Your task to perform on an android device: Search for sushi restaurants on Maps Image 0: 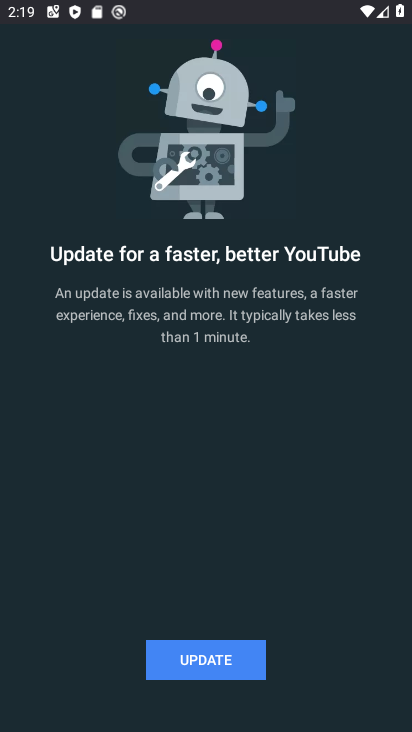
Step 0: press home button
Your task to perform on an android device: Search for sushi restaurants on Maps Image 1: 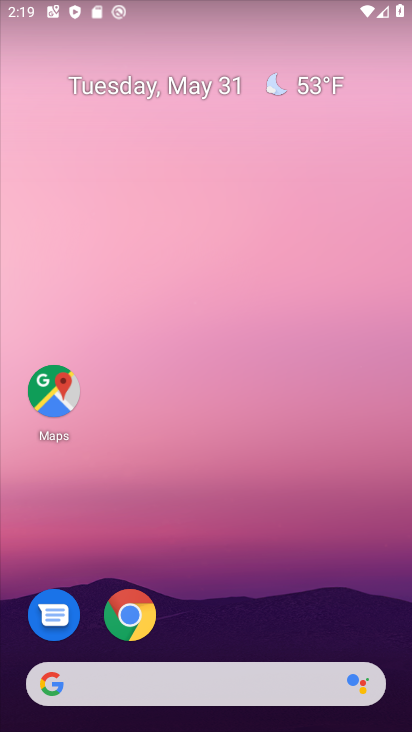
Step 1: click (42, 384)
Your task to perform on an android device: Search for sushi restaurants on Maps Image 2: 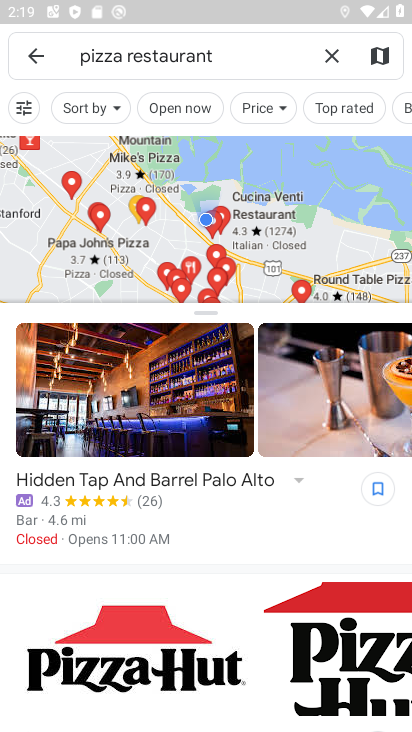
Step 2: click (331, 51)
Your task to perform on an android device: Search for sushi restaurants on Maps Image 3: 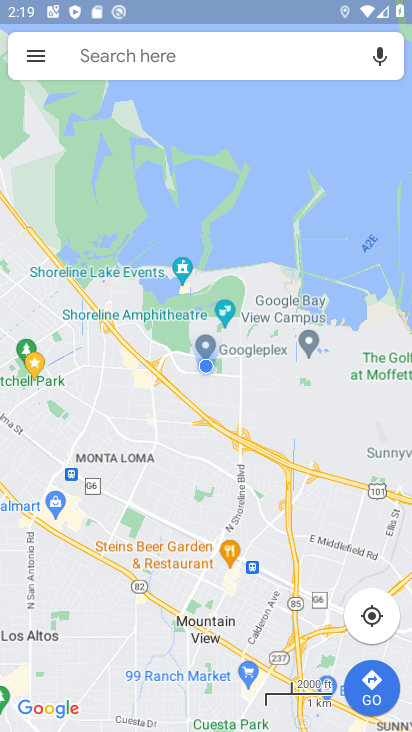
Step 3: click (114, 64)
Your task to perform on an android device: Search for sushi restaurants on Maps Image 4: 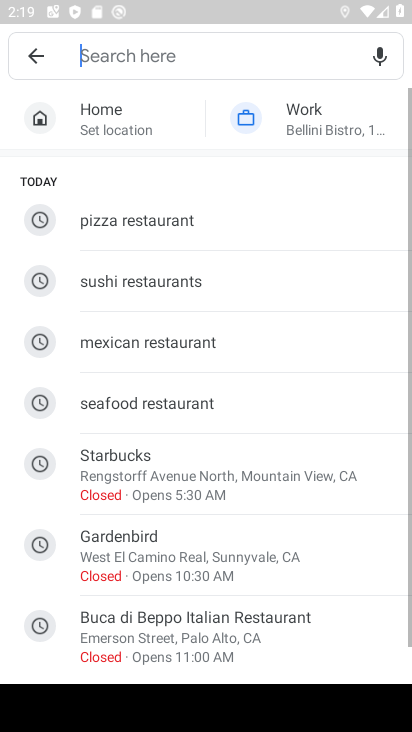
Step 4: click (130, 285)
Your task to perform on an android device: Search for sushi restaurants on Maps Image 5: 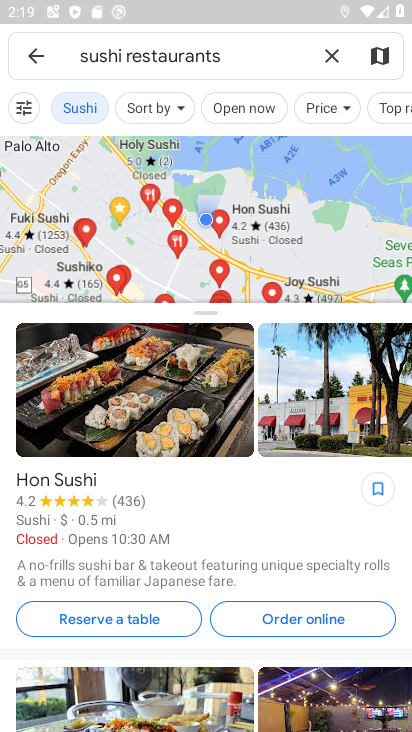
Step 5: task complete